Your task to perform on an android device: When is my next meeting? Image 0: 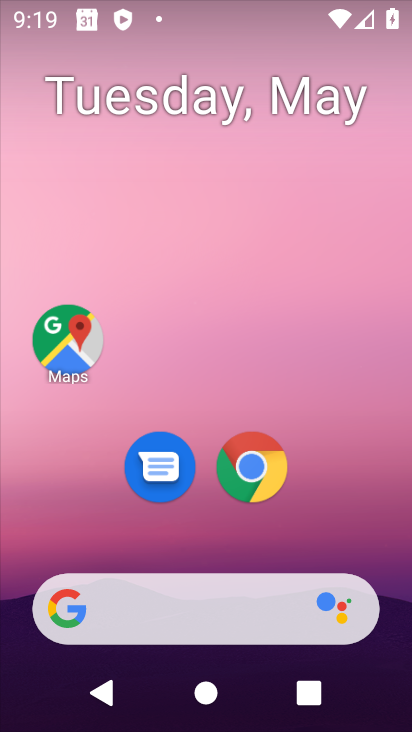
Step 0: drag from (370, 524) to (247, 6)
Your task to perform on an android device: When is my next meeting? Image 1: 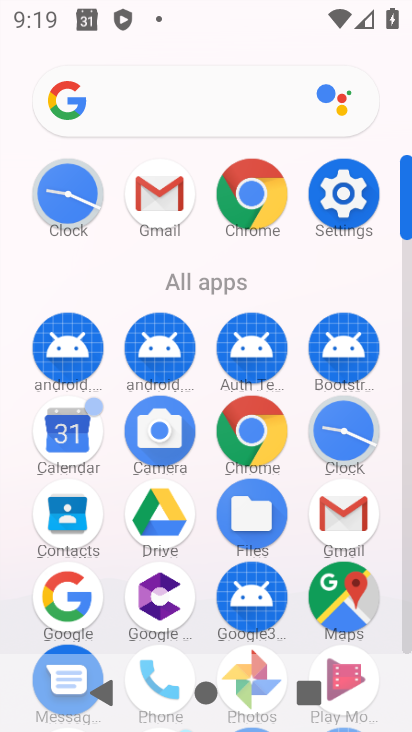
Step 1: drag from (6, 585) to (5, 297)
Your task to perform on an android device: When is my next meeting? Image 2: 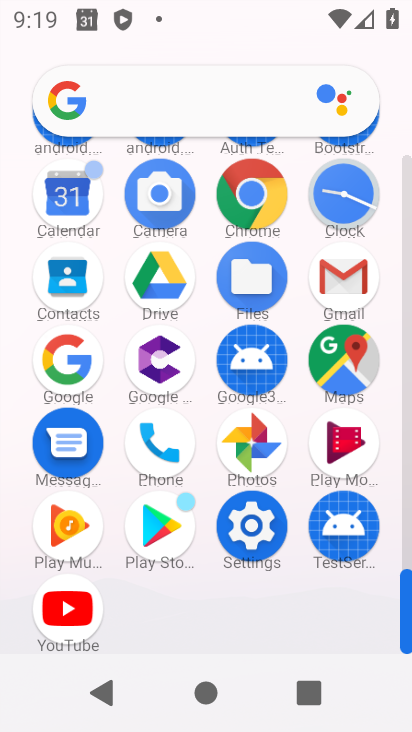
Step 2: drag from (18, 539) to (18, 230)
Your task to perform on an android device: When is my next meeting? Image 3: 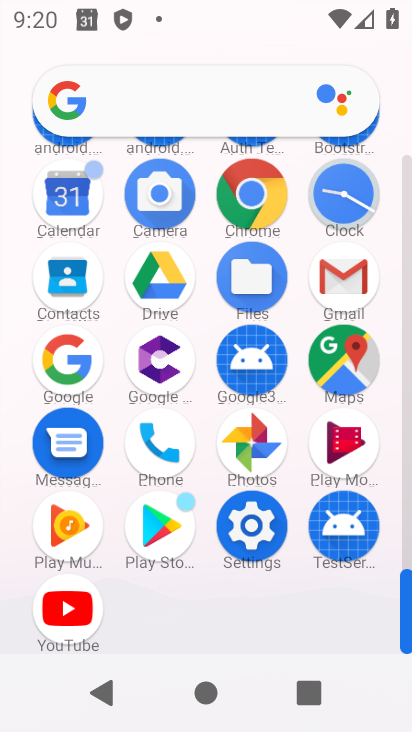
Step 3: drag from (9, 519) to (30, 284)
Your task to perform on an android device: When is my next meeting? Image 4: 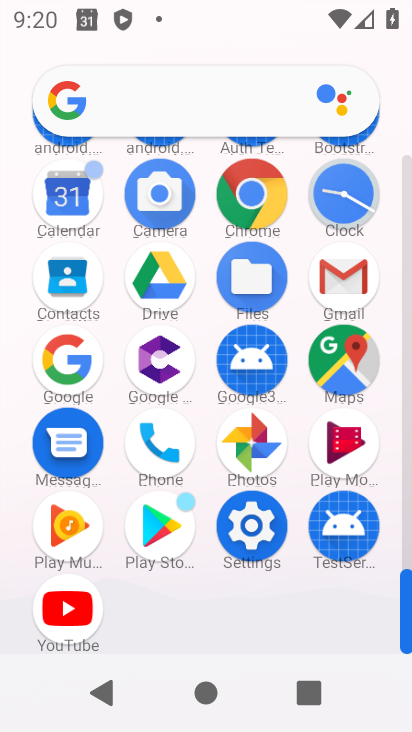
Step 4: drag from (21, 168) to (17, 469)
Your task to perform on an android device: When is my next meeting? Image 5: 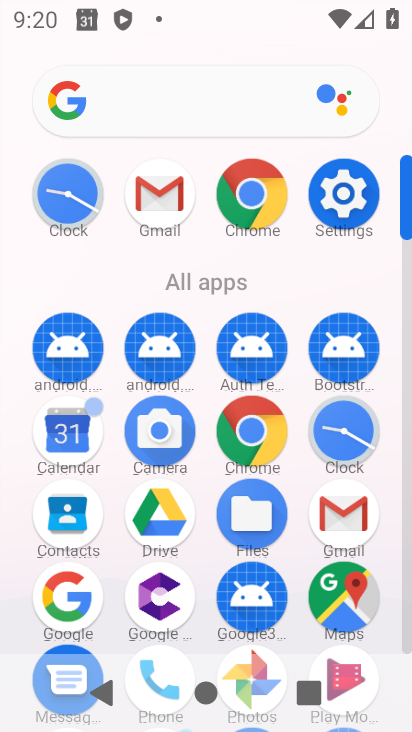
Step 5: click (68, 425)
Your task to perform on an android device: When is my next meeting? Image 6: 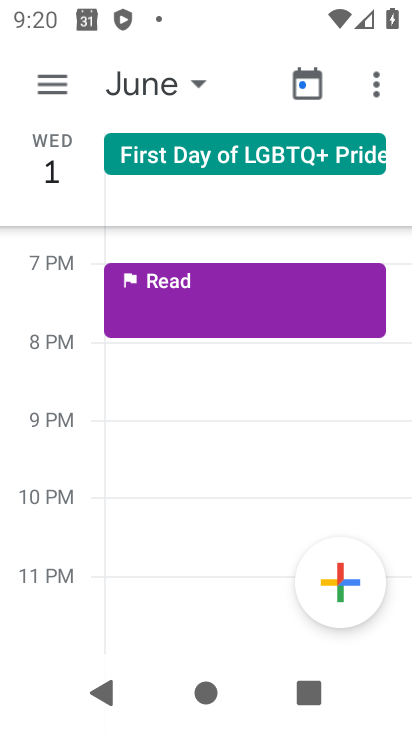
Step 6: click (51, 80)
Your task to perform on an android device: When is my next meeting? Image 7: 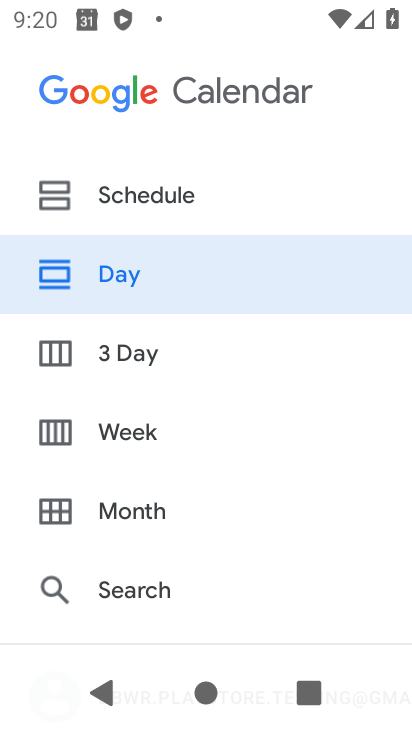
Step 7: click (177, 184)
Your task to perform on an android device: When is my next meeting? Image 8: 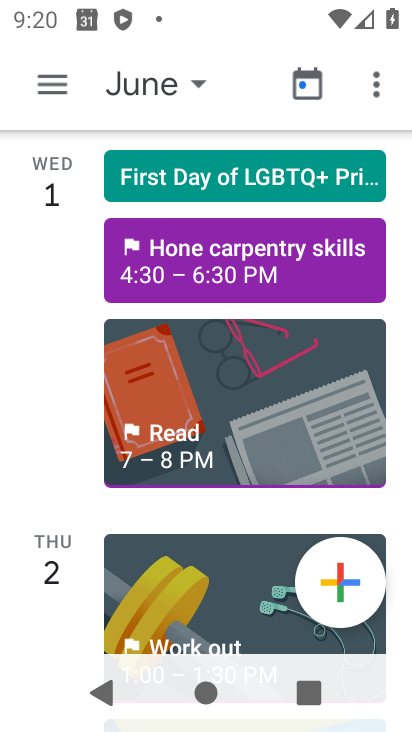
Step 8: task complete